Your task to perform on an android device: change alarm snooze length Image 0: 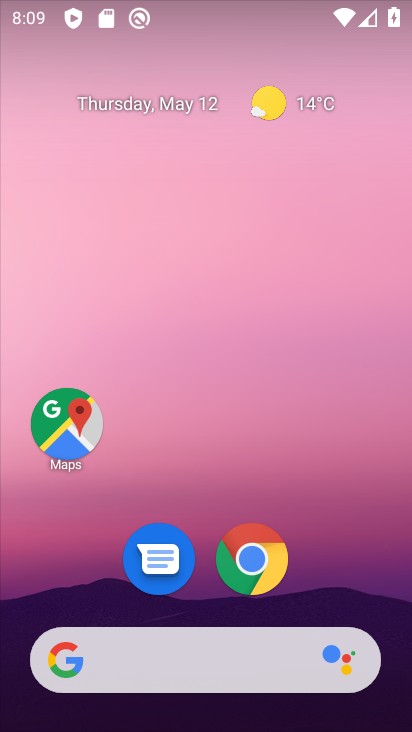
Step 0: drag from (339, 559) to (345, 58)
Your task to perform on an android device: change alarm snooze length Image 1: 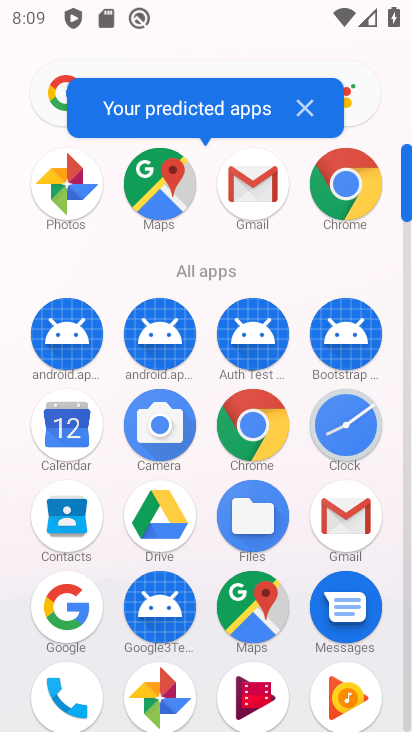
Step 1: click (344, 445)
Your task to perform on an android device: change alarm snooze length Image 2: 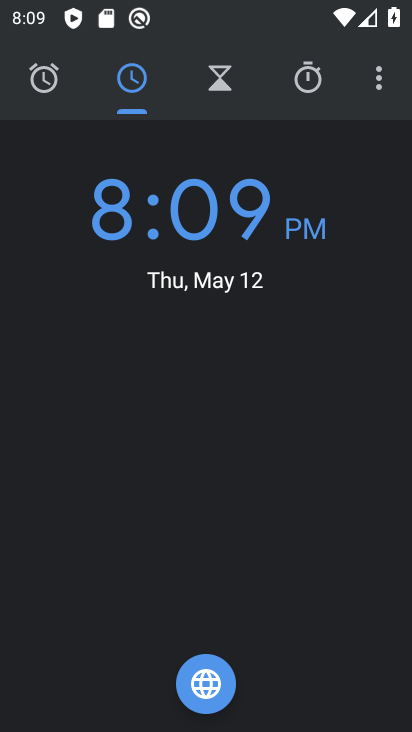
Step 2: click (373, 88)
Your task to perform on an android device: change alarm snooze length Image 3: 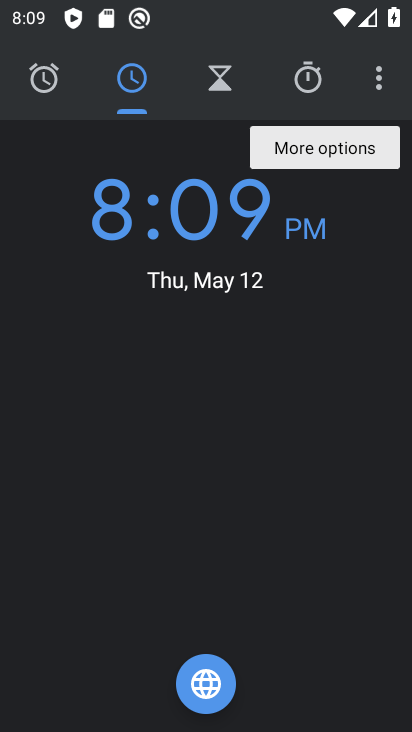
Step 3: click (385, 83)
Your task to perform on an android device: change alarm snooze length Image 4: 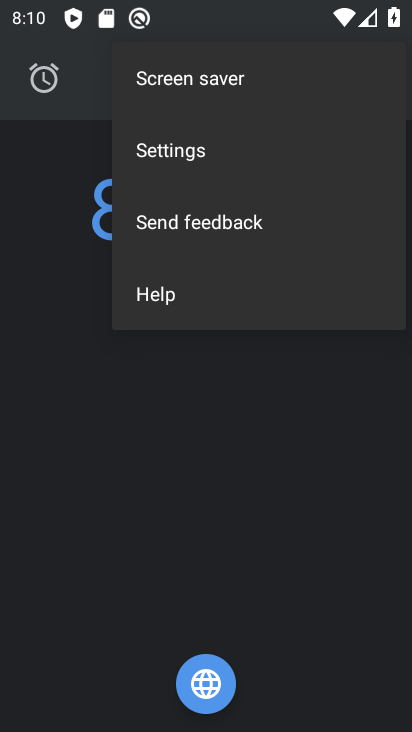
Step 4: click (240, 146)
Your task to perform on an android device: change alarm snooze length Image 5: 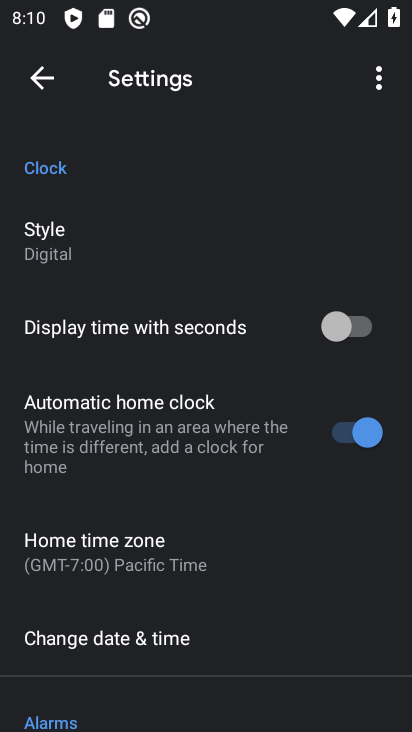
Step 5: drag from (241, 650) to (262, 307)
Your task to perform on an android device: change alarm snooze length Image 6: 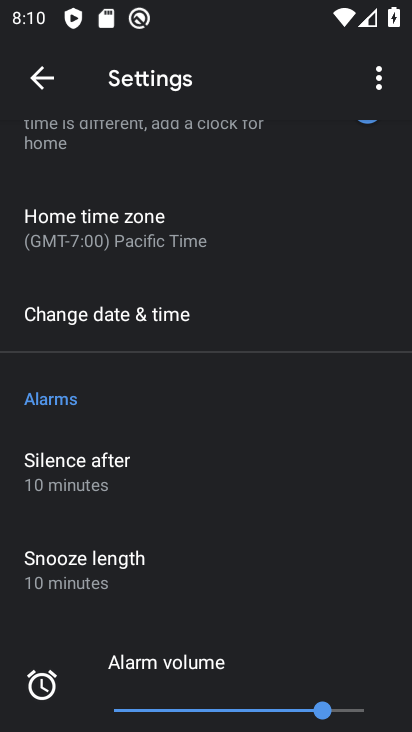
Step 6: click (168, 573)
Your task to perform on an android device: change alarm snooze length Image 7: 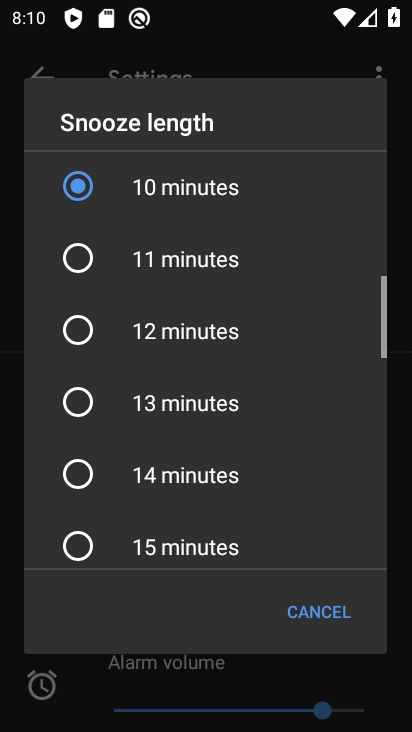
Step 7: click (218, 252)
Your task to perform on an android device: change alarm snooze length Image 8: 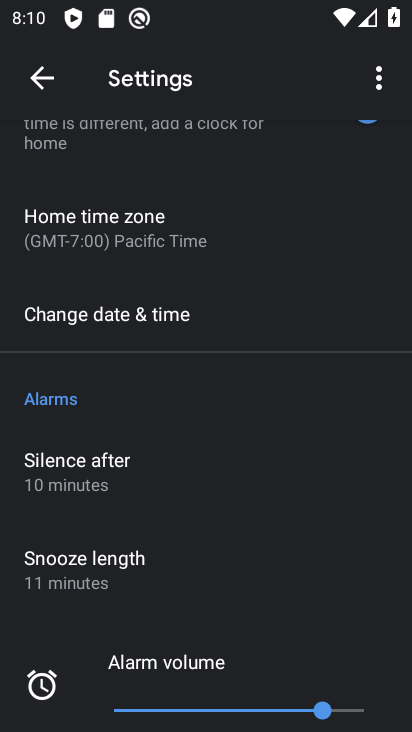
Step 8: task complete